Your task to perform on an android device: Check the weather Image 0: 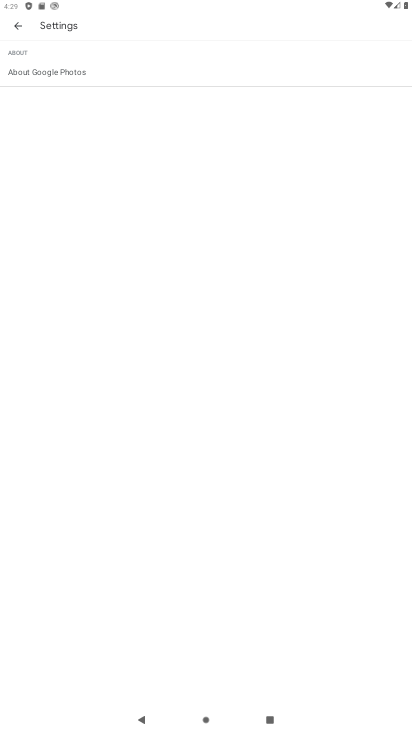
Step 0: press home button
Your task to perform on an android device: Check the weather Image 1: 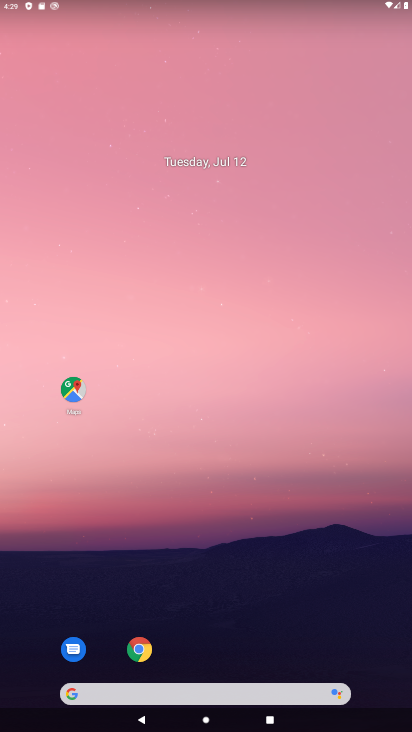
Step 1: drag from (177, 686) to (130, 226)
Your task to perform on an android device: Check the weather Image 2: 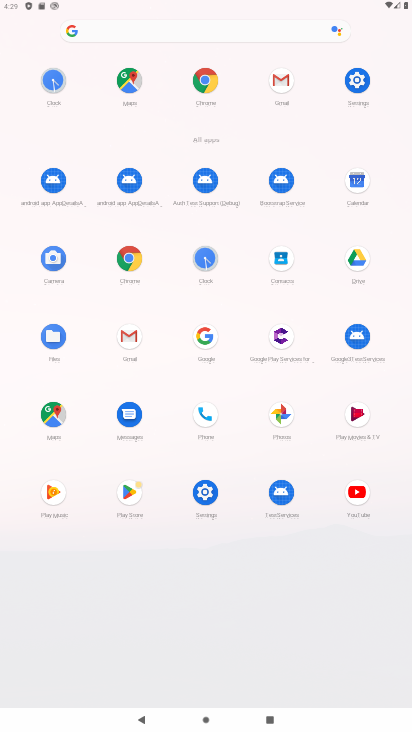
Step 2: click (204, 335)
Your task to perform on an android device: Check the weather Image 3: 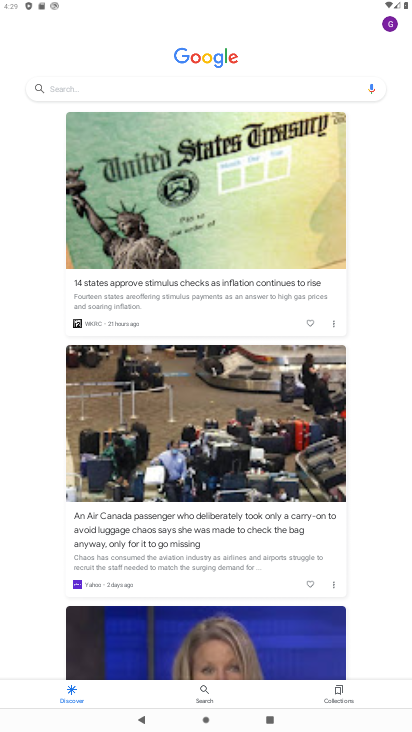
Step 3: click (137, 79)
Your task to perform on an android device: Check the weather Image 4: 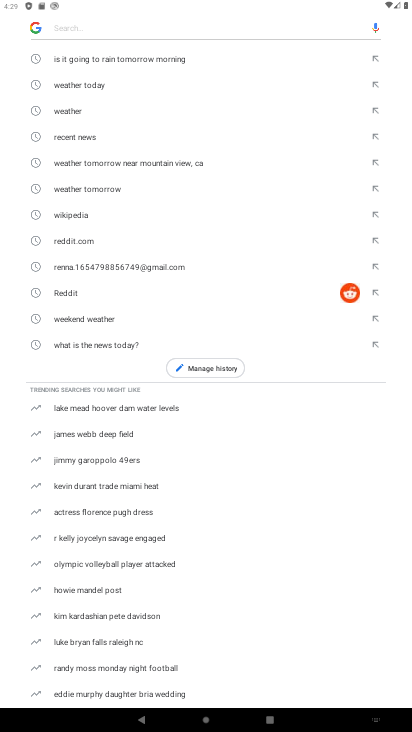
Step 4: click (69, 117)
Your task to perform on an android device: Check the weather Image 5: 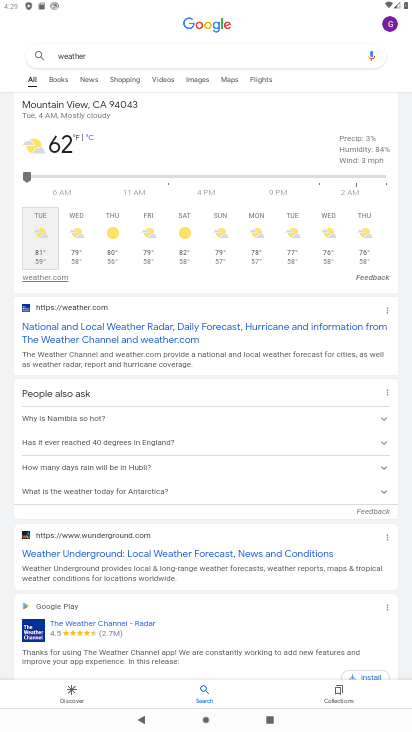
Step 5: task complete